Your task to perform on an android device: Open Reddit.com Image 0: 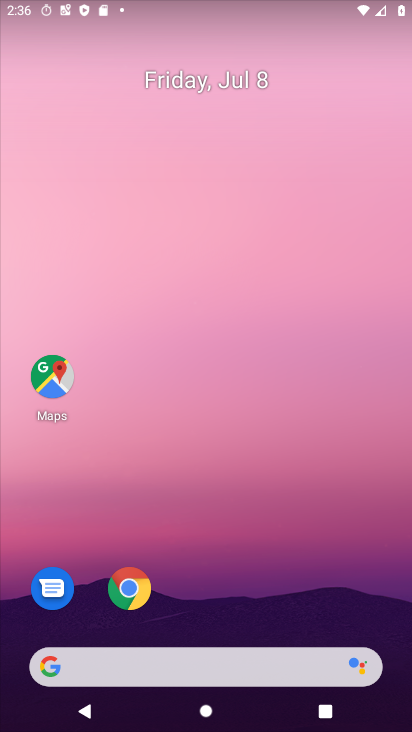
Step 0: press home button
Your task to perform on an android device: Open Reddit.com Image 1: 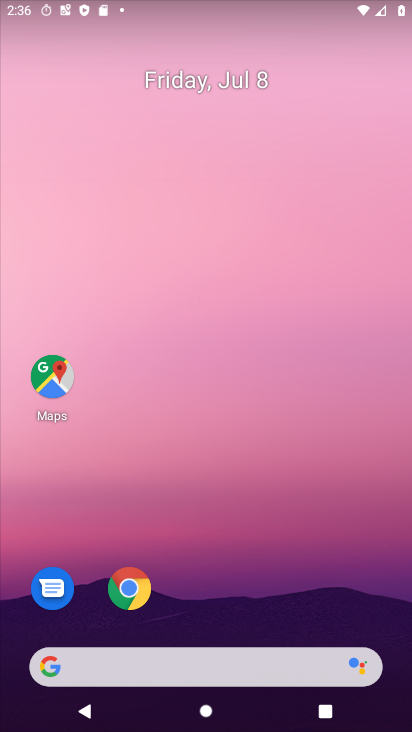
Step 1: click (33, 669)
Your task to perform on an android device: Open Reddit.com Image 2: 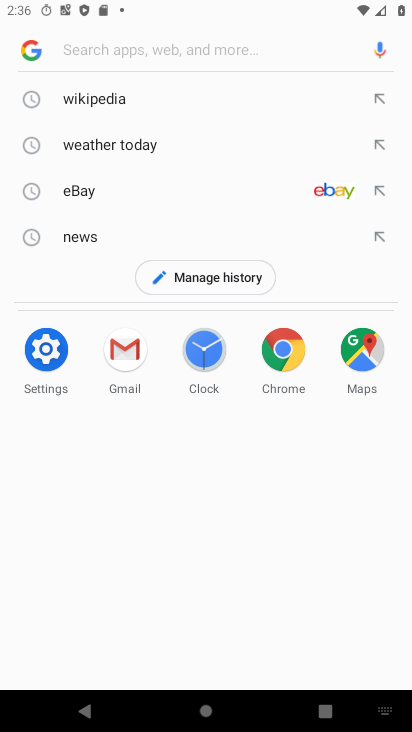
Step 2: type "Reddit.com"
Your task to perform on an android device: Open Reddit.com Image 3: 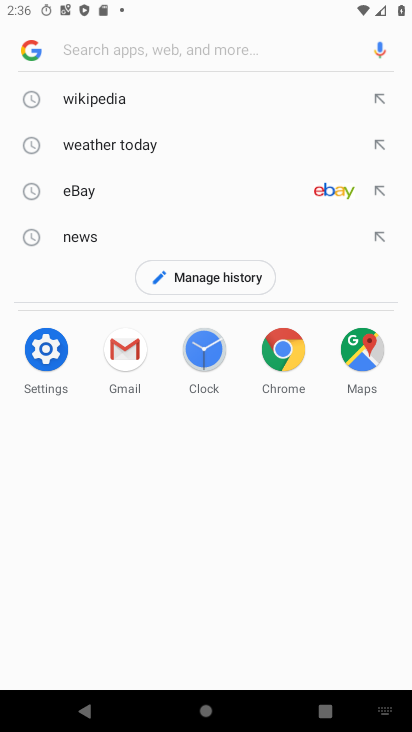
Step 3: click (127, 38)
Your task to perform on an android device: Open Reddit.com Image 4: 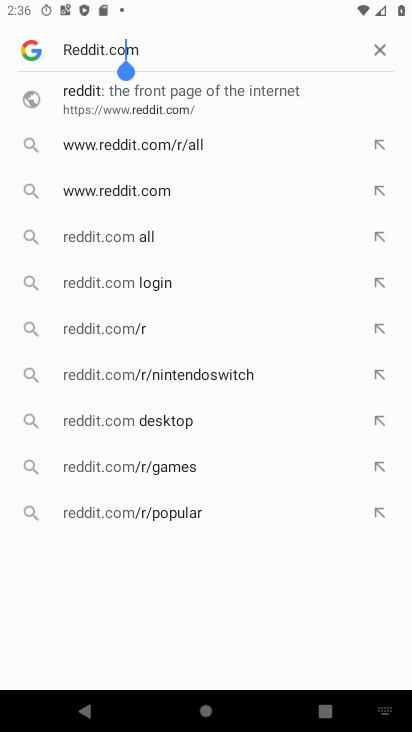
Step 4: click (87, 89)
Your task to perform on an android device: Open Reddit.com Image 5: 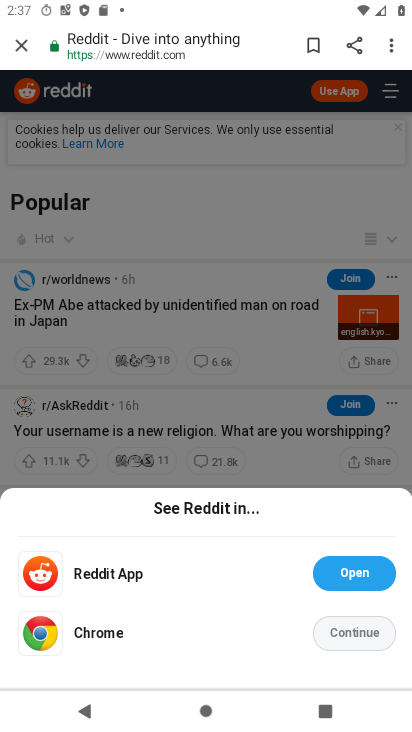
Step 5: task complete